Your task to perform on an android device: set an alarm Image 0: 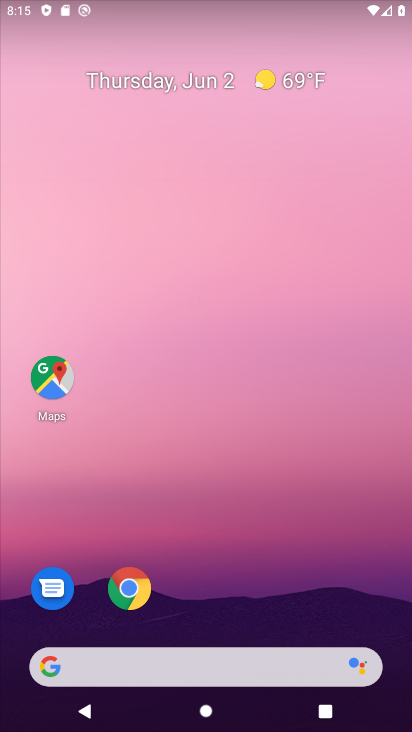
Step 0: drag from (233, 668) to (224, 34)
Your task to perform on an android device: set an alarm Image 1: 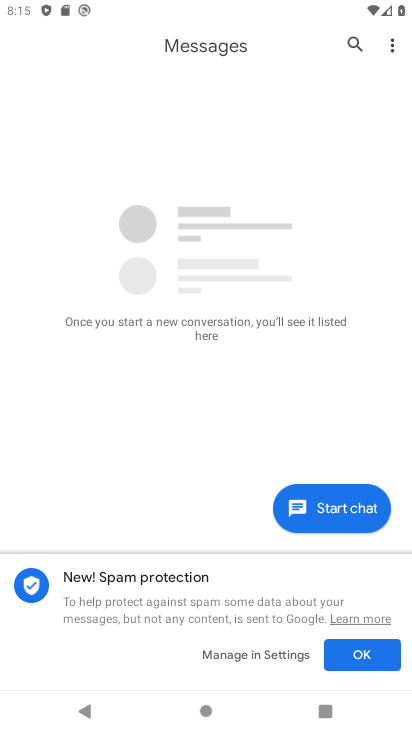
Step 1: press home button
Your task to perform on an android device: set an alarm Image 2: 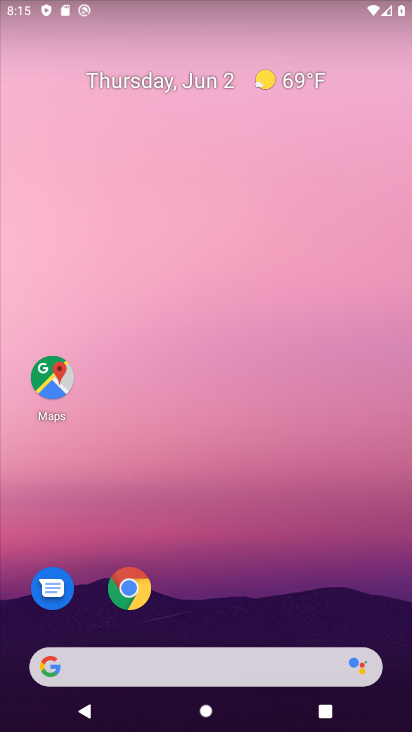
Step 2: drag from (235, 729) to (219, 175)
Your task to perform on an android device: set an alarm Image 3: 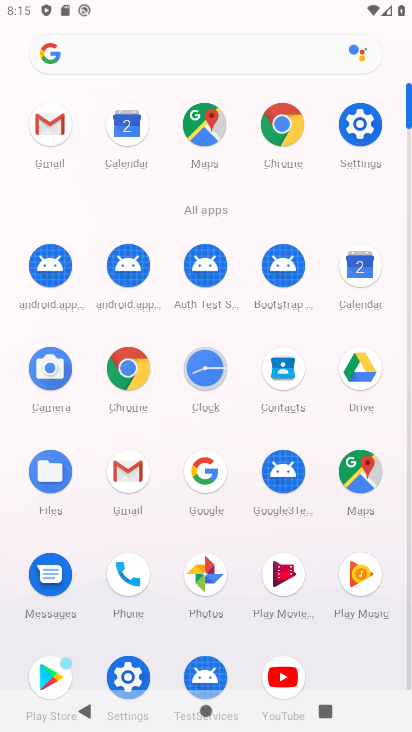
Step 3: click (202, 373)
Your task to perform on an android device: set an alarm Image 4: 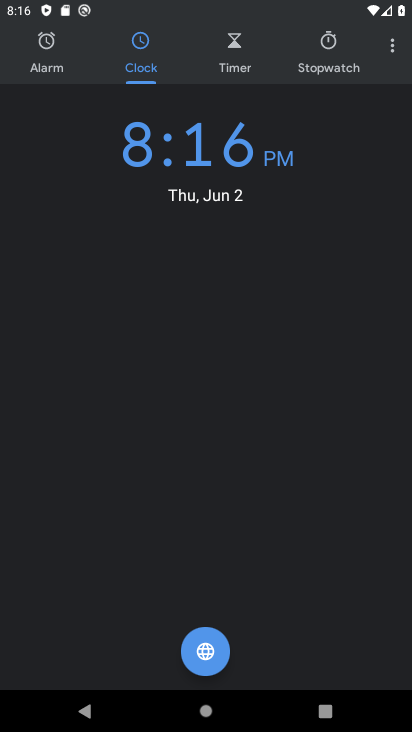
Step 4: click (48, 43)
Your task to perform on an android device: set an alarm Image 5: 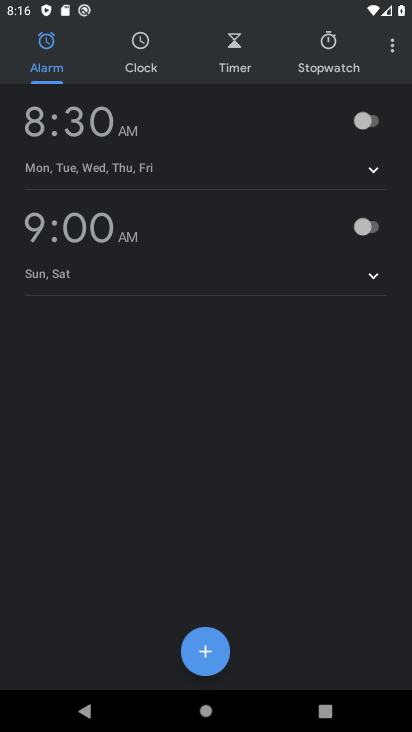
Step 5: click (207, 645)
Your task to perform on an android device: set an alarm Image 6: 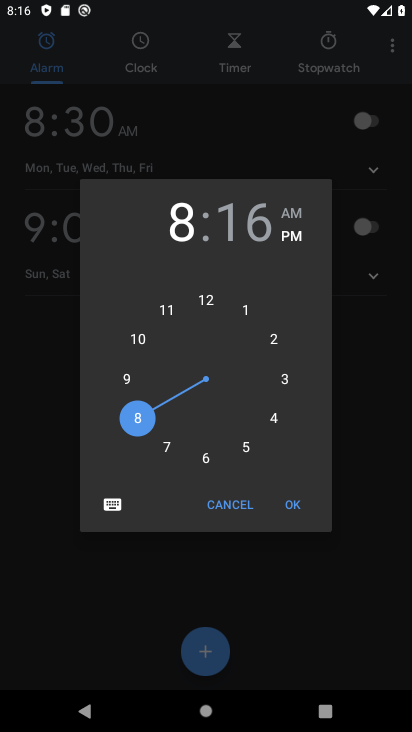
Step 6: click (204, 460)
Your task to perform on an android device: set an alarm Image 7: 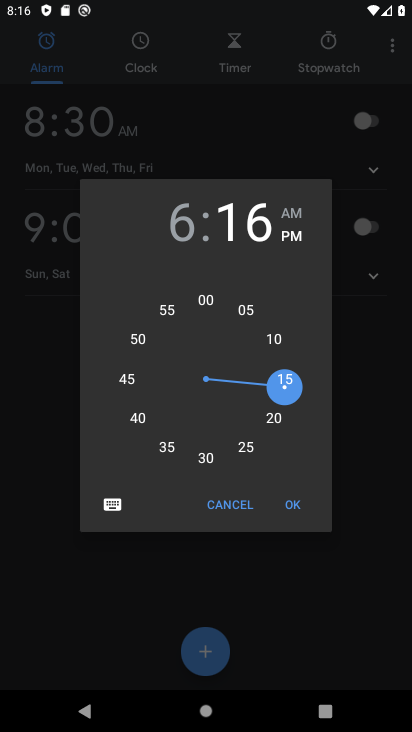
Step 7: click (113, 508)
Your task to perform on an android device: set an alarm Image 8: 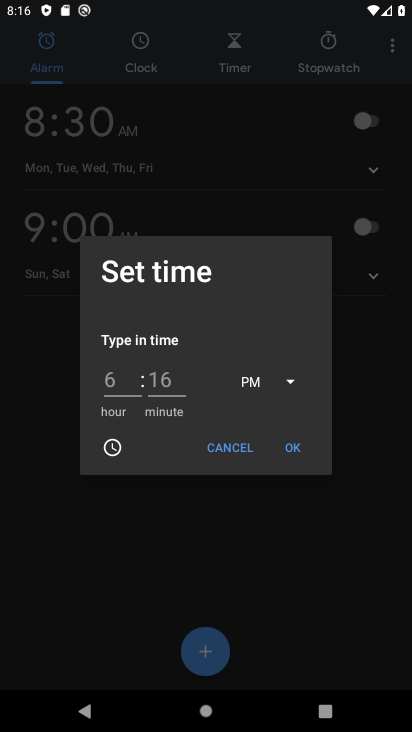
Step 8: click (114, 383)
Your task to perform on an android device: set an alarm Image 9: 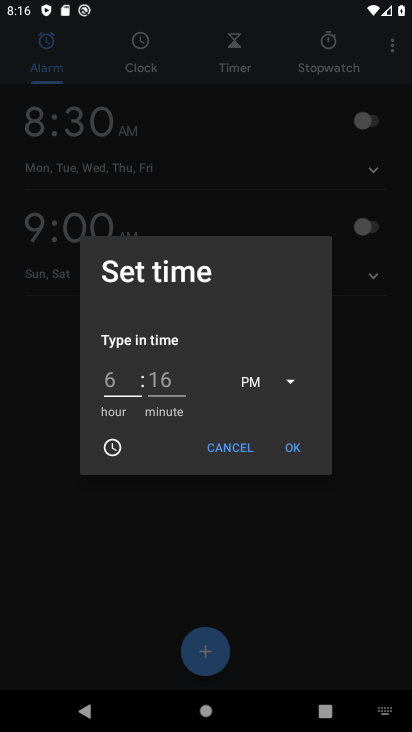
Step 9: click (122, 381)
Your task to perform on an android device: set an alarm Image 10: 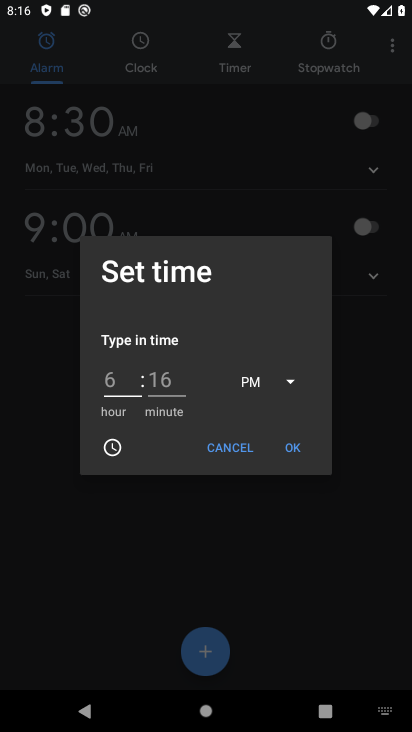
Step 10: click (291, 447)
Your task to perform on an android device: set an alarm Image 11: 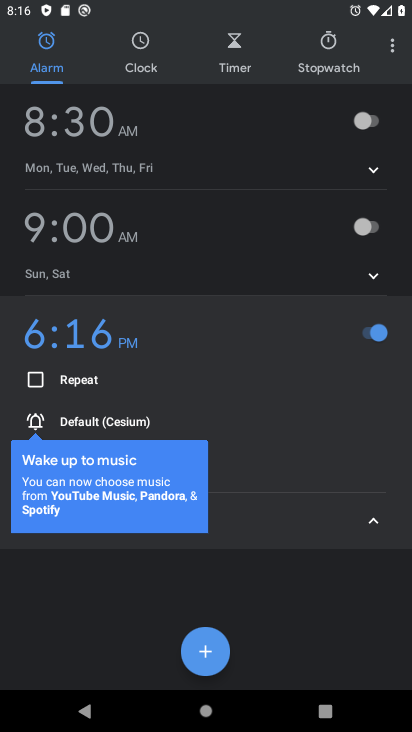
Step 11: task complete